Your task to perform on an android device: manage bookmarks in the chrome app Image 0: 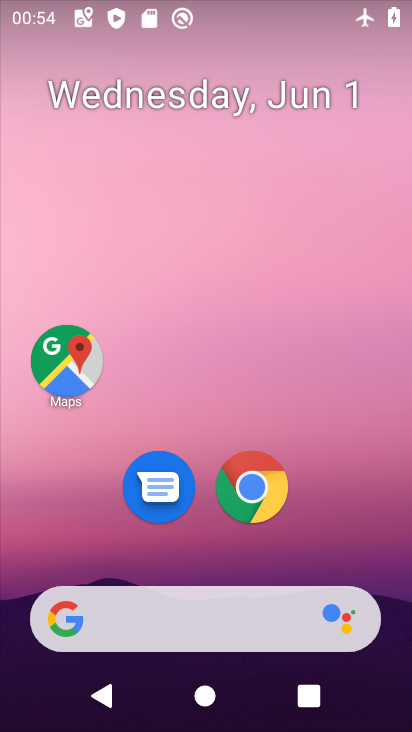
Step 0: click (257, 477)
Your task to perform on an android device: manage bookmarks in the chrome app Image 1: 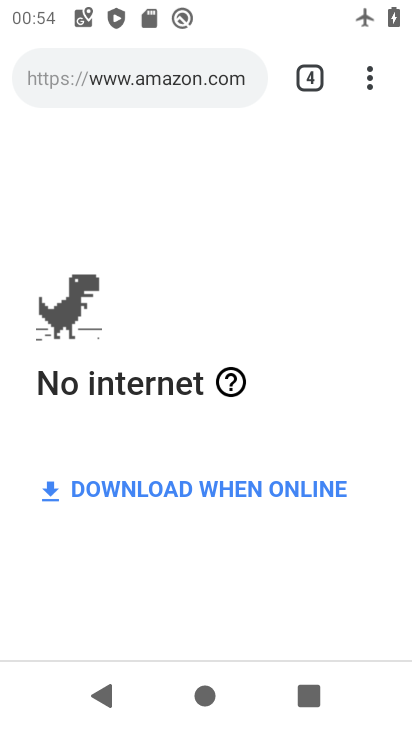
Step 1: click (380, 70)
Your task to perform on an android device: manage bookmarks in the chrome app Image 2: 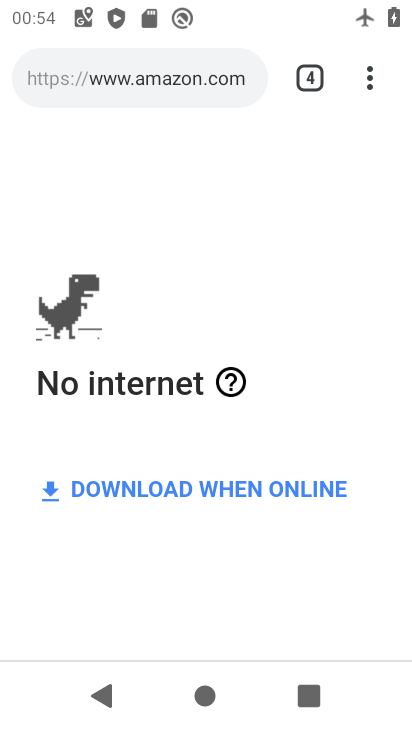
Step 2: click (371, 76)
Your task to perform on an android device: manage bookmarks in the chrome app Image 3: 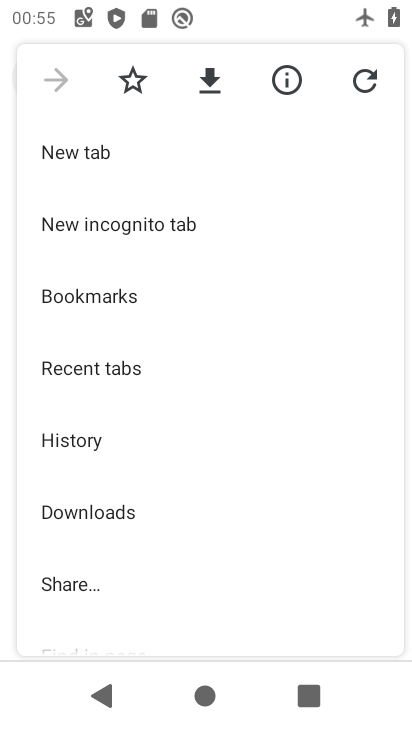
Step 3: click (83, 304)
Your task to perform on an android device: manage bookmarks in the chrome app Image 4: 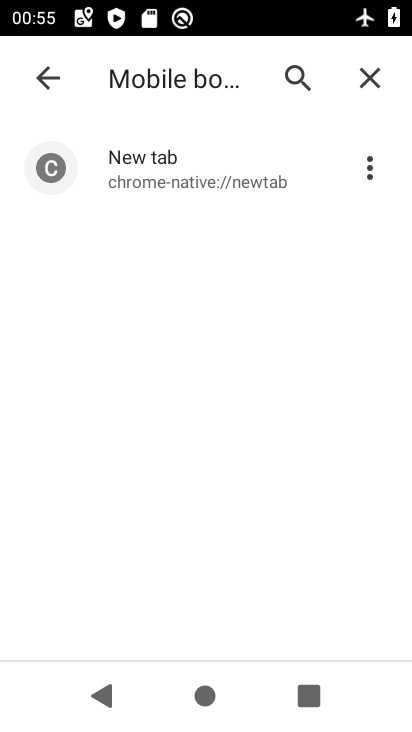
Step 4: click (122, 182)
Your task to perform on an android device: manage bookmarks in the chrome app Image 5: 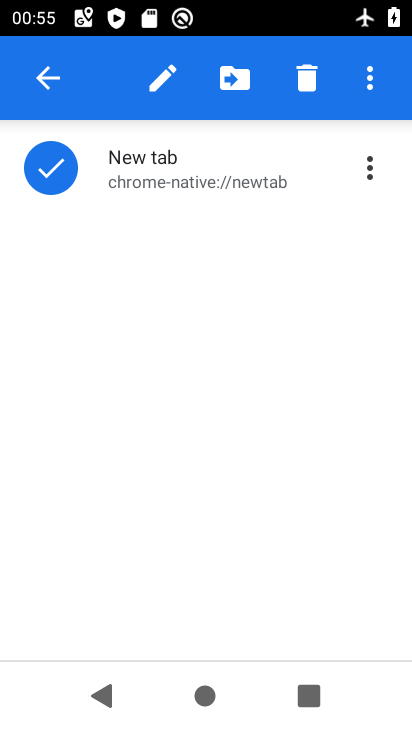
Step 5: click (236, 82)
Your task to perform on an android device: manage bookmarks in the chrome app Image 6: 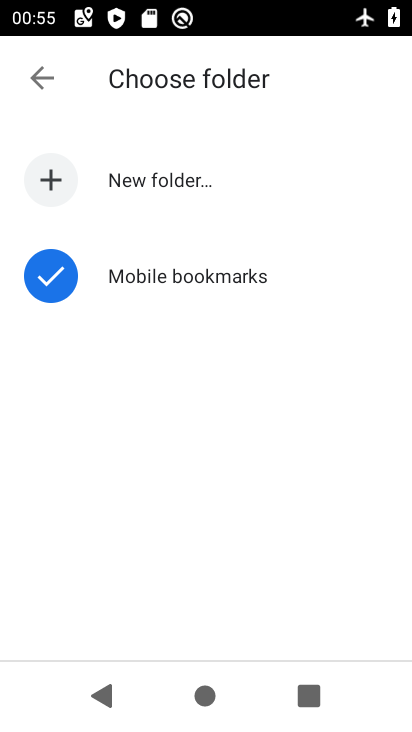
Step 6: click (152, 191)
Your task to perform on an android device: manage bookmarks in the chrome app Image 7: 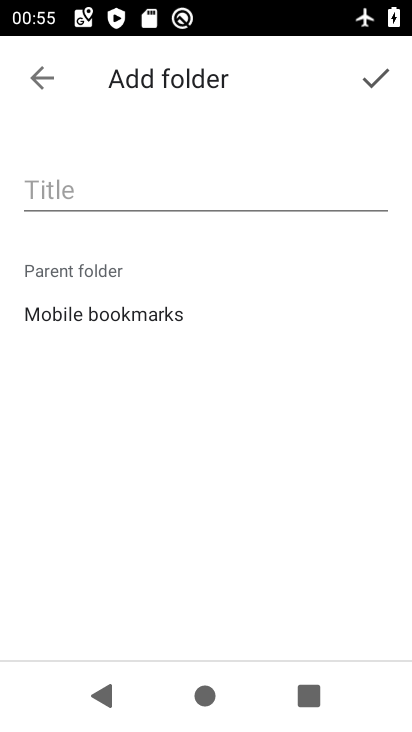
Step 7: click (137, 163)
Your task to perform on an android device: manage bookmarks in the chrome app Image 8: 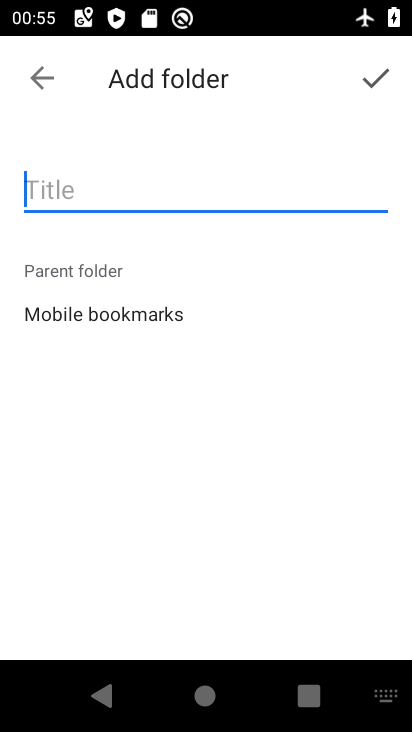
Step 8: type "himachal"
Your task to perform on an android device: manage bookmarks in the chrome app Image 9: 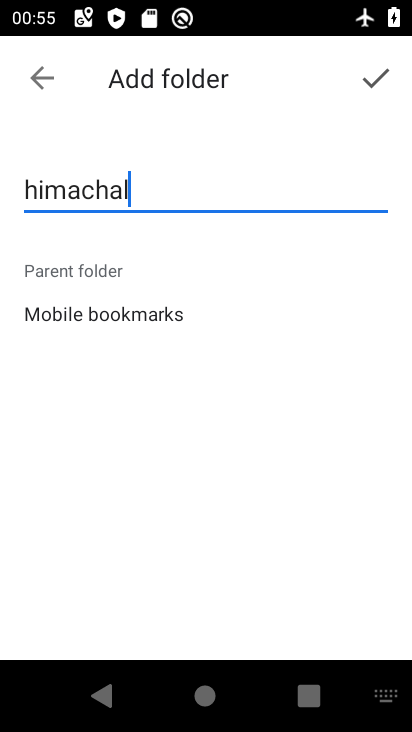
Step 9: click (388, 77)
Your task to perform on an android device: manage bookmarks in the chrome app Image 10: 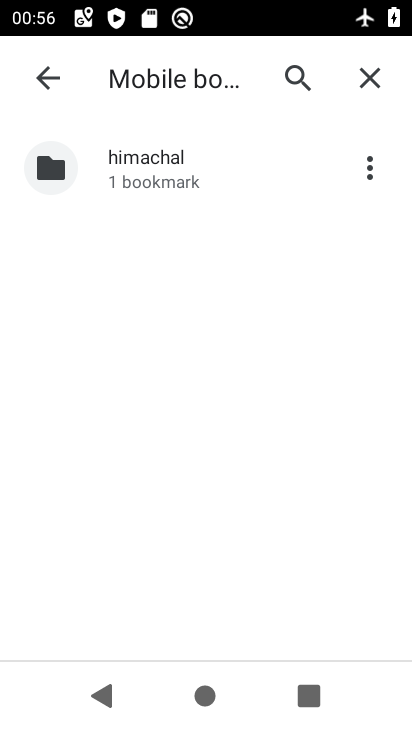
Step 10: task complete